Your task to perform on an android device: change the clock display to digital Image 0: 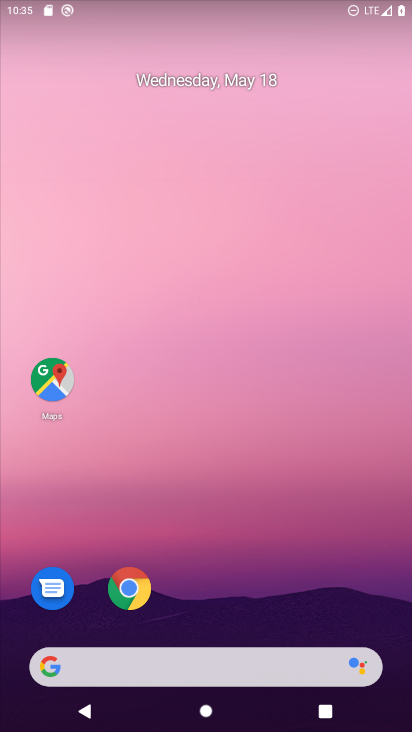
Step 0: drag from (326, 636) to (410, 127)
Your task to perform on an android device: change the clock display to digital Image 1: 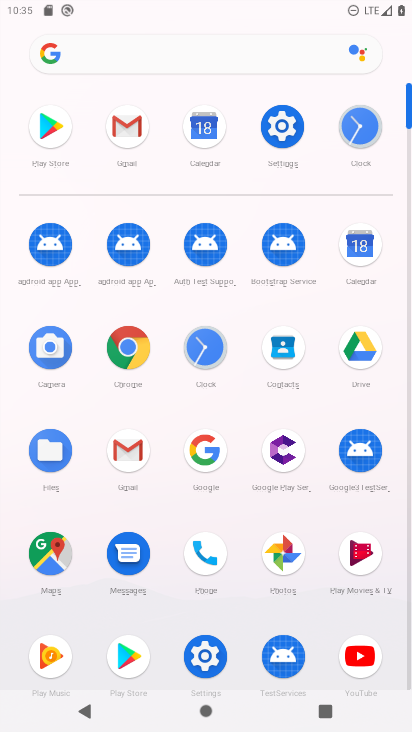
Step 1: click (363, 129)
Your task to perform on an android device: change the clock display to digital Image 2: 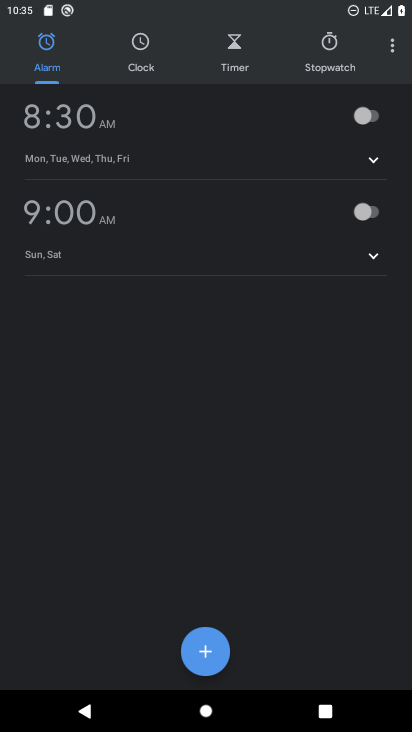
Step 2: click (396, 48)
Your task to perform on an android device: change the clock display to digital Image 3: 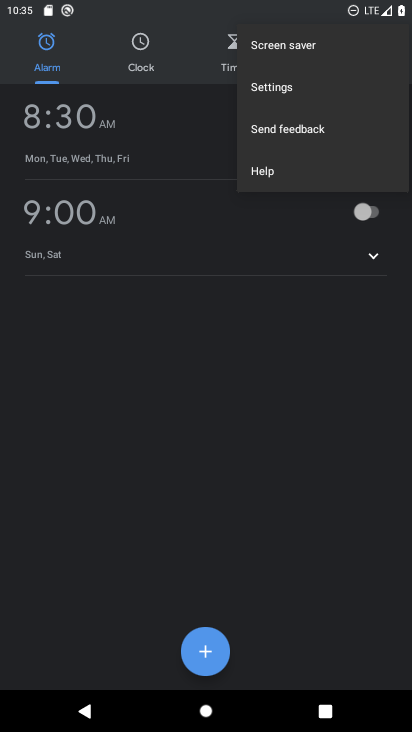
Step 3: click (265, 90)
Your task to perform on an android device: change the clock display to digital Image 4: 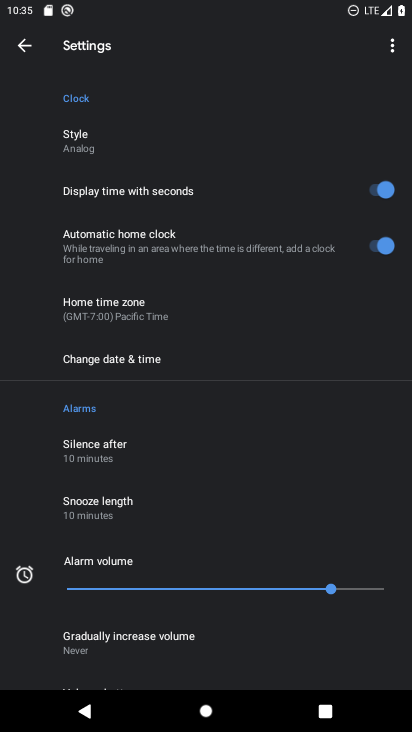
Step 4: click (80, 144)
Your task to perform on an android device: change the clock display to digital Image 5: 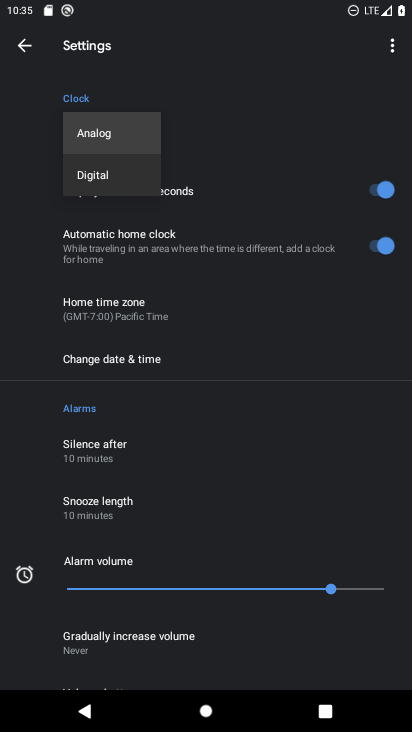
Step 5: click (91, 169)
Your task to perform on an android device: change the clock display to digital Image 6: 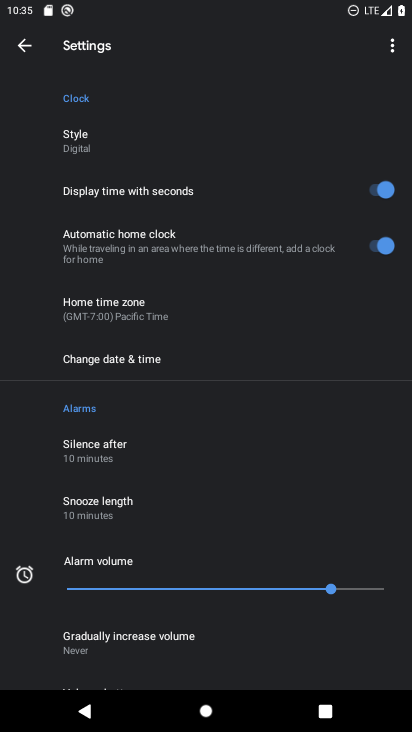
Step 6: task complete